Your task to perform on an android device: Open settings Image 0: 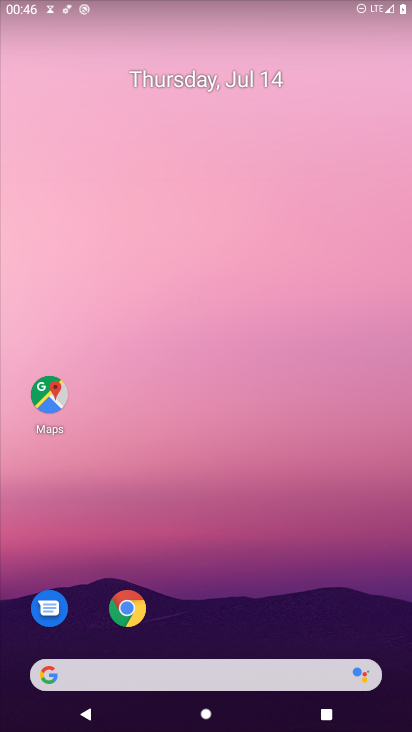
Step 0: press home button
Your task to perform on an android device: Open settings Image 1: 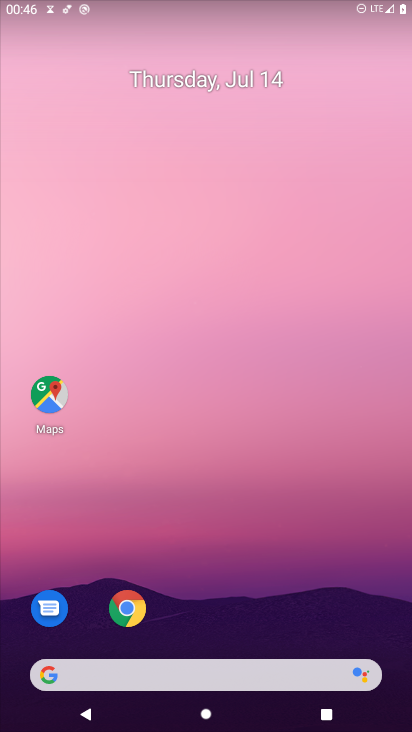
Step 1: drag from (259, 569) to (301, 8)
Your task to perform on an android device: Open settings Image 2: 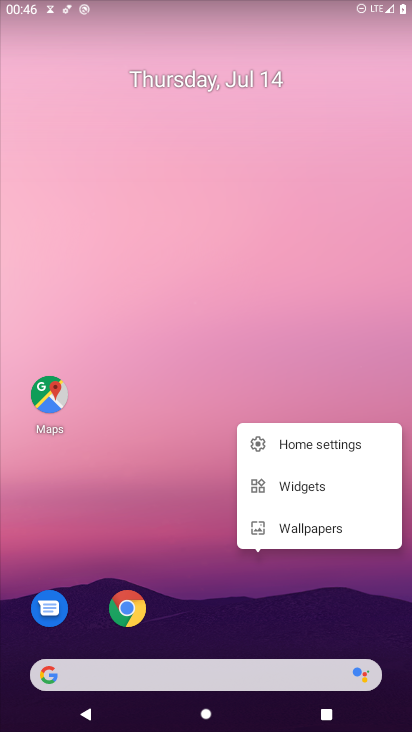
Step 2: press home button
Your task to perform on an android device: Open settings Image 3: 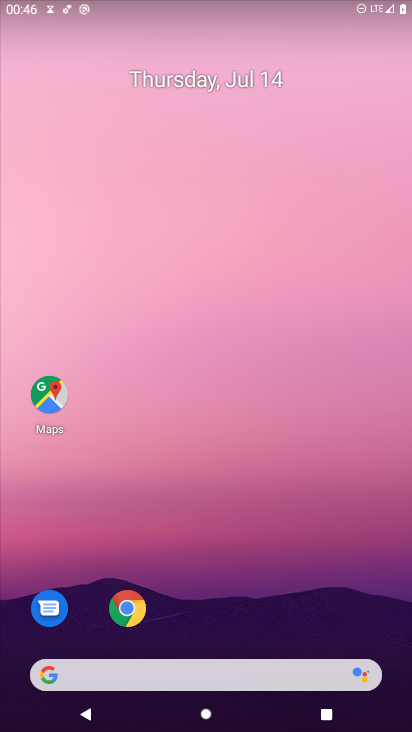
Step 3: drag from (257, 597) to (337, 5)
Your task to perform on an android device: Open settings Image 4: 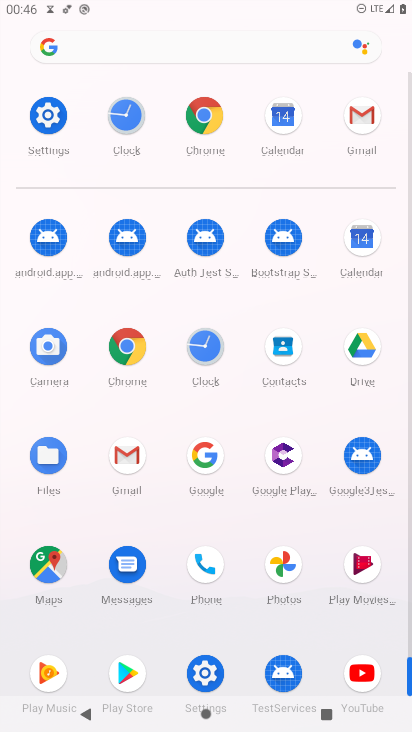
Step 4: click (42, 117)
Your task to perform on an android device: Open settings Image 5: 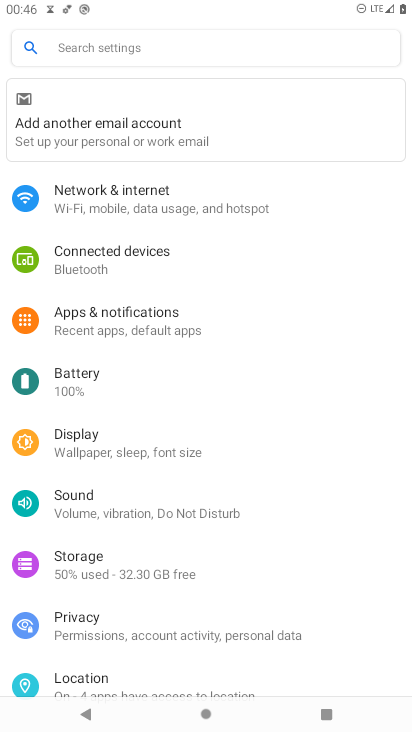
Step 5: task complete